Your task to perform on an android device: see sites visited before in the chrome app Image 0: 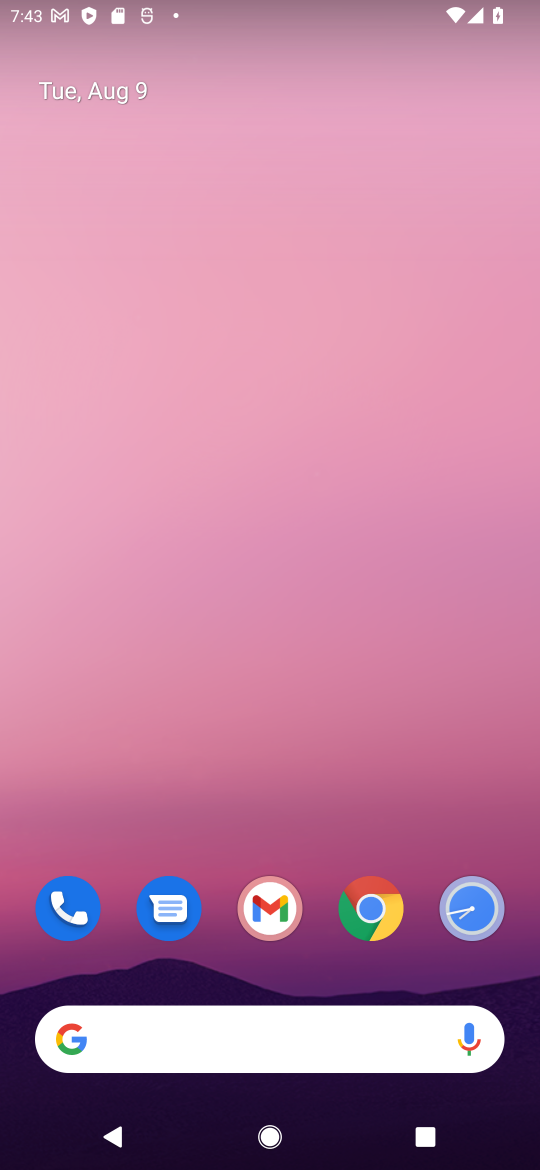
Step 0: click (370, 907)
Your task to perform on an android device: see sites visited before in the chrome app Image 1: 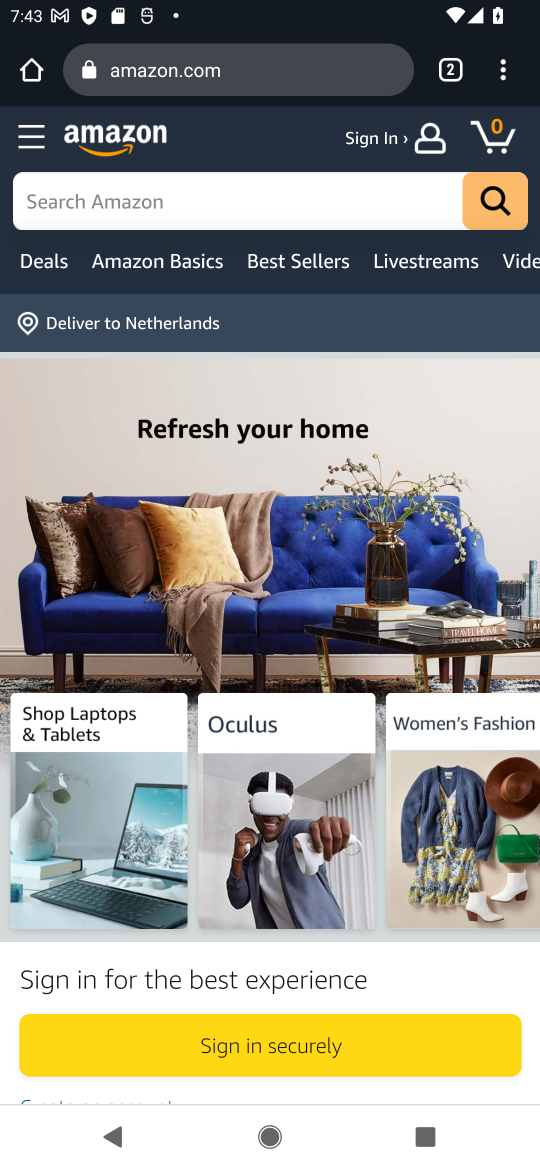
Step 1: click (369, 909)
Your task to perform on an android device: see sites visited before in the chrome app Image 2: 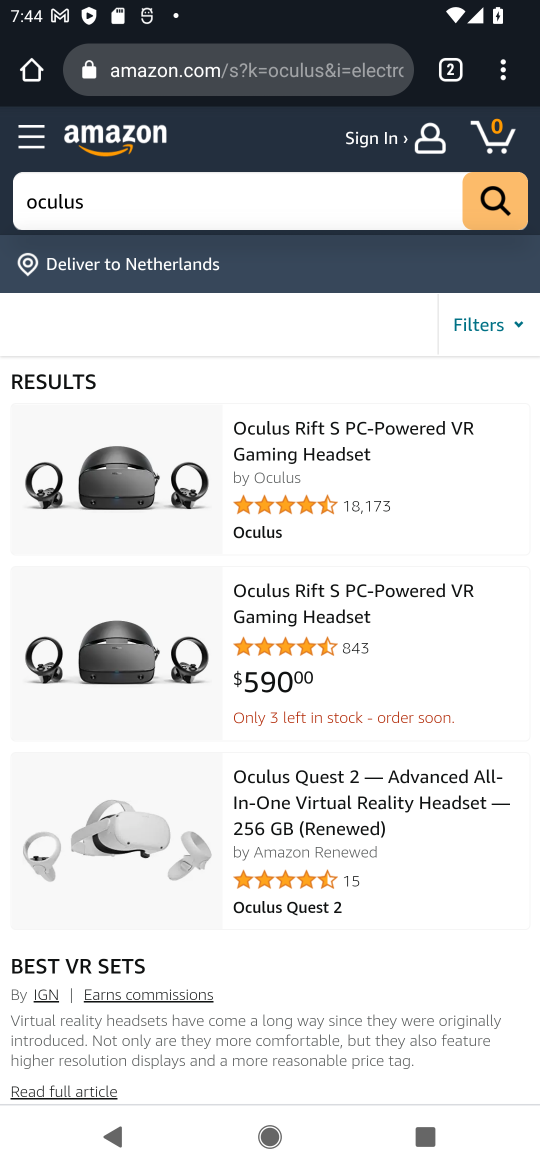
Step 2: click (504, 75)
Your task to perform on an android device: see sites visited before in the chrome app Image 3: 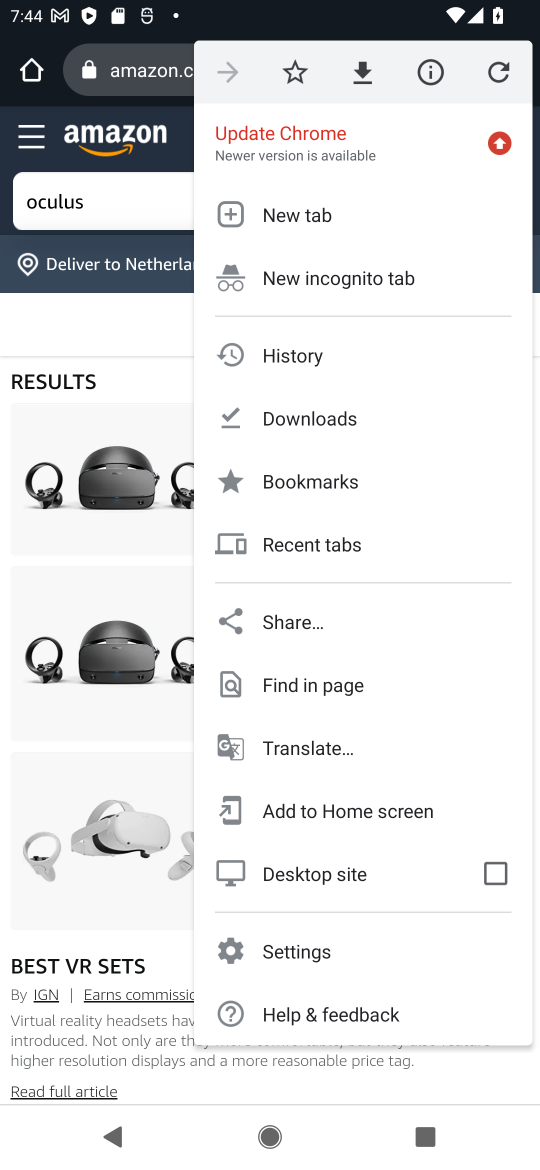
Step 3: click (310, 536)
Your task to perform on an android device: see sites visited before in the chrome app Image 4: 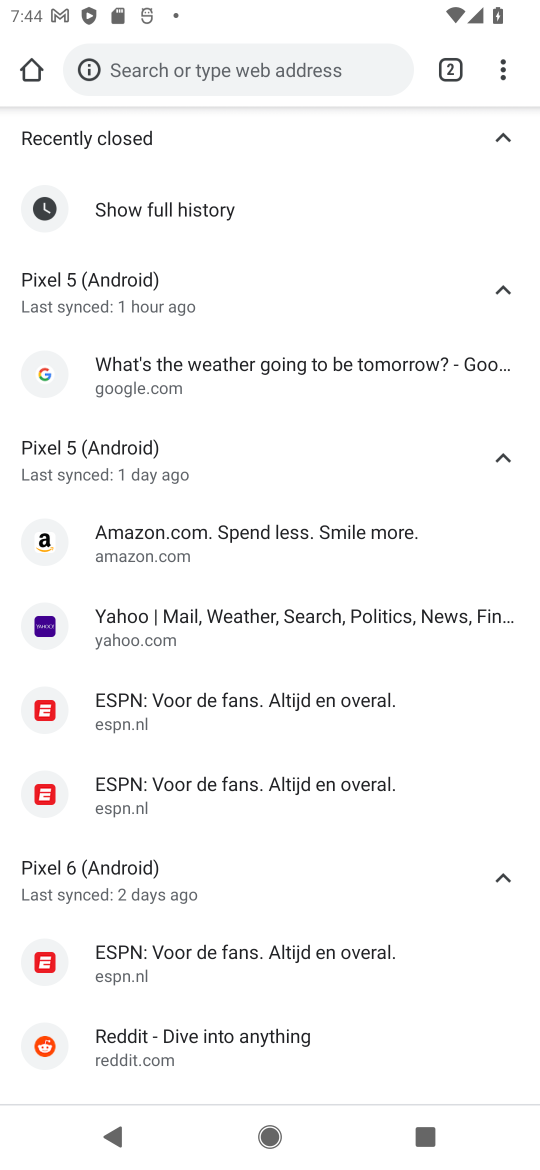
Step 4: task complete